Your task to perform on an android device: Is it going to rain tomorrow? Image 0: 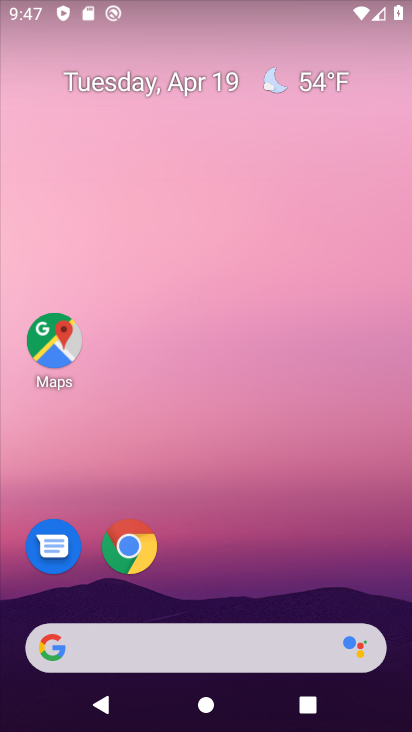
Step 0: click (197, 659)
Your task to perform on an android device: Is it going to rain tomorrow? Image 1: 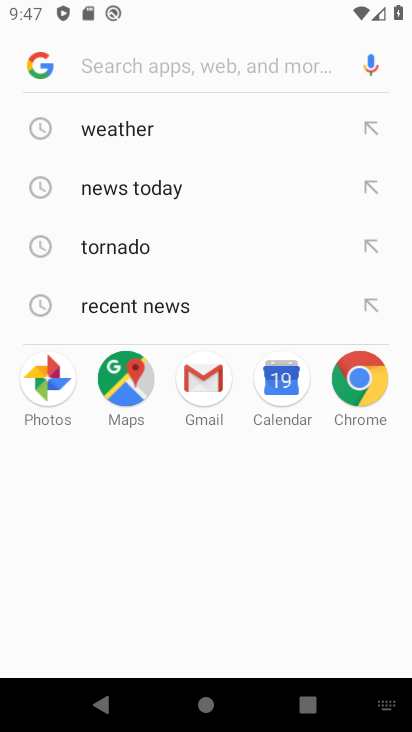
Step 1: type "Is it going to rain tomorrow?"
Your task to perform on an android device: Is it going to rain tomorrow? Image 2: 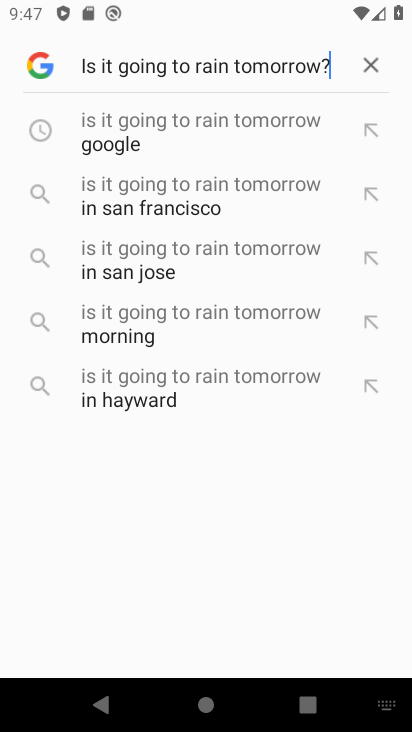
Step 2: click (246, 123)
Your task to perform on an android device: Is it going to rain tomorrow? Image 3: 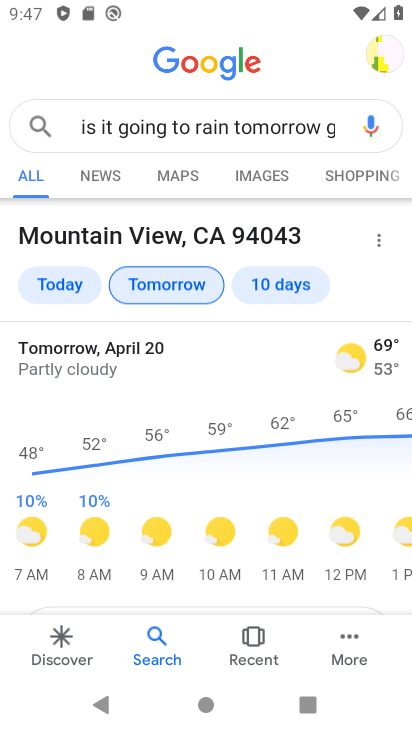
Step 3: task complete